Your task to perform on an android device: Clear all items from cart on newegg. Search for usb-c to usb-a on newegg, select the first entry, and add it to the cart. Image 0: 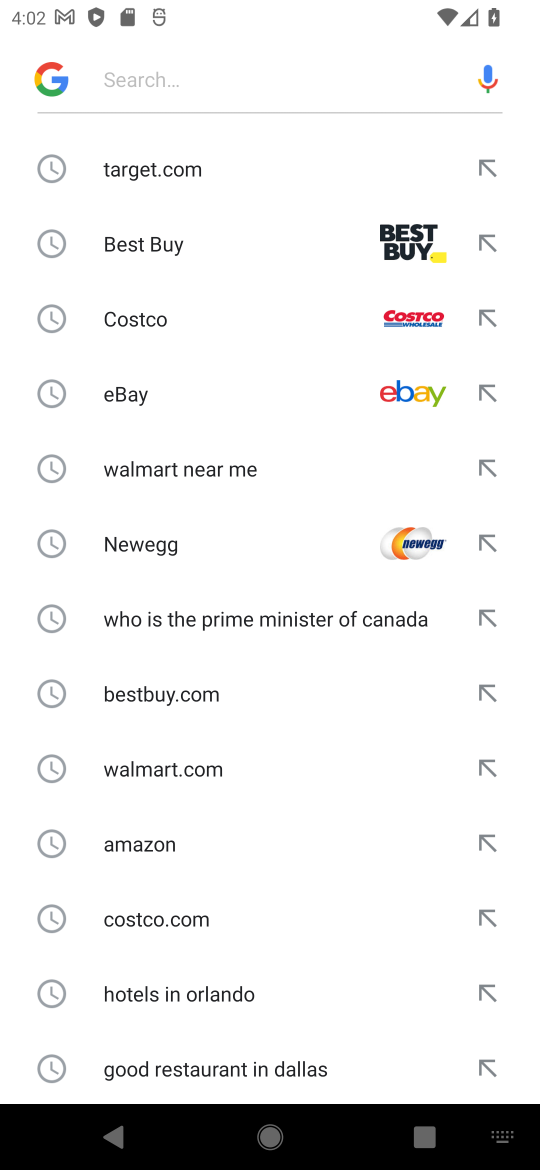
Step 0: press home button
Your task to perform on an android device: Clear all items from cart on newegg. Search for usb-c to usb-a on newegg, select the first entry, and add it to the cart. Image 1: 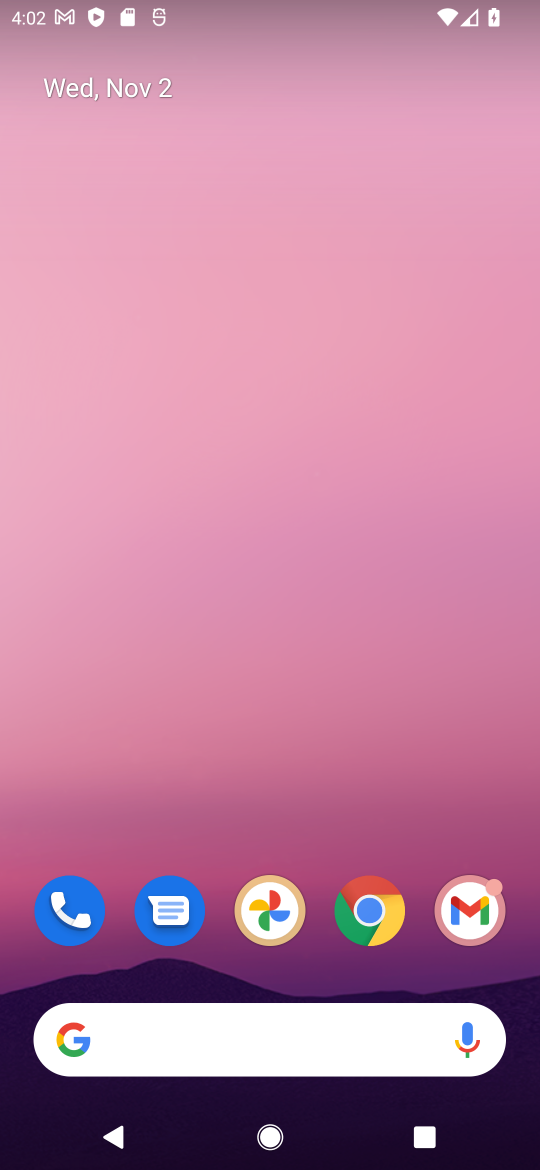
Step 1: click (377, 910)
Your task to perform on an android device: Clear all items from cart on newegg. Search for usb-c to usb-a on newegg, select the first entry, and add it to the cart. Image 2: 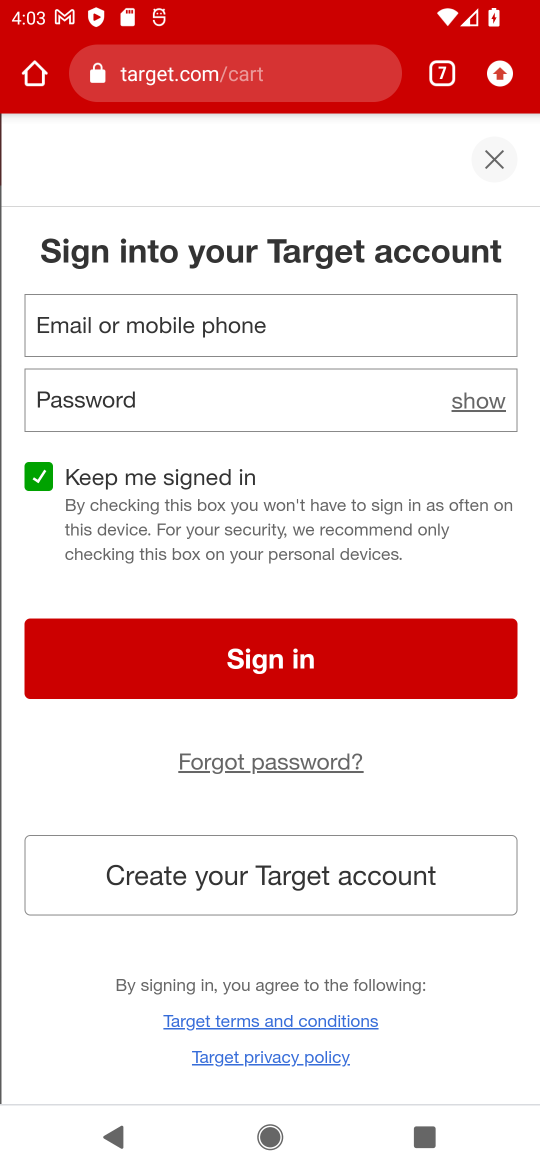
Step 2: click (453, 82)
Your task to perform on an android device: Clear all items from cart on newegg. Search for usb-c to usb-a on newegg, select the first entry, and add it to the cart. Image 3: 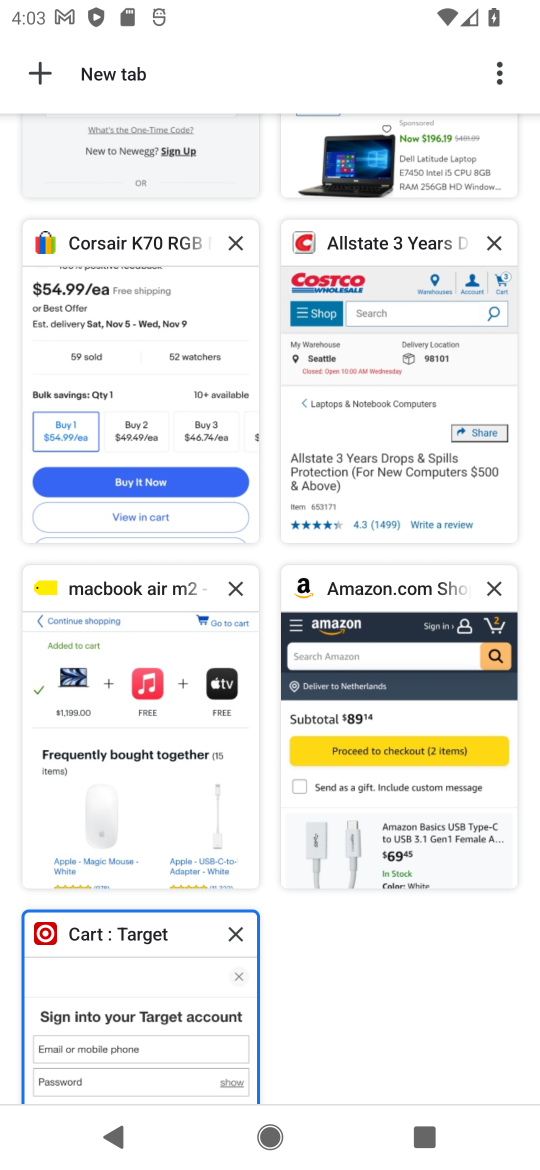
Step 3: drag from (337, 260) to (321, 680)
Your task to perform on an android device: Clear all items from cart on newegg. Search for usb-c to usb-a on newegg, select the first entry, and add it to the cart. Image 4: 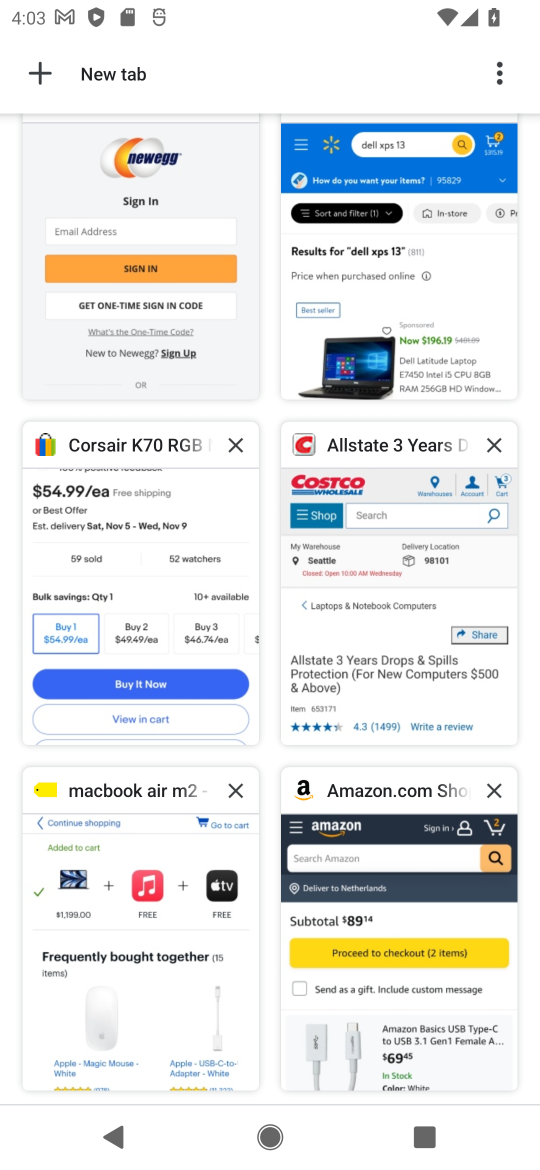
Step 4: drag from (306, 908) to (391, 462)
Your task to perform on an android device: Clear all items from cart on newegg. Search for usb-c to usb-a on newegg, select the first entry, and add it to the cart. Image 5: 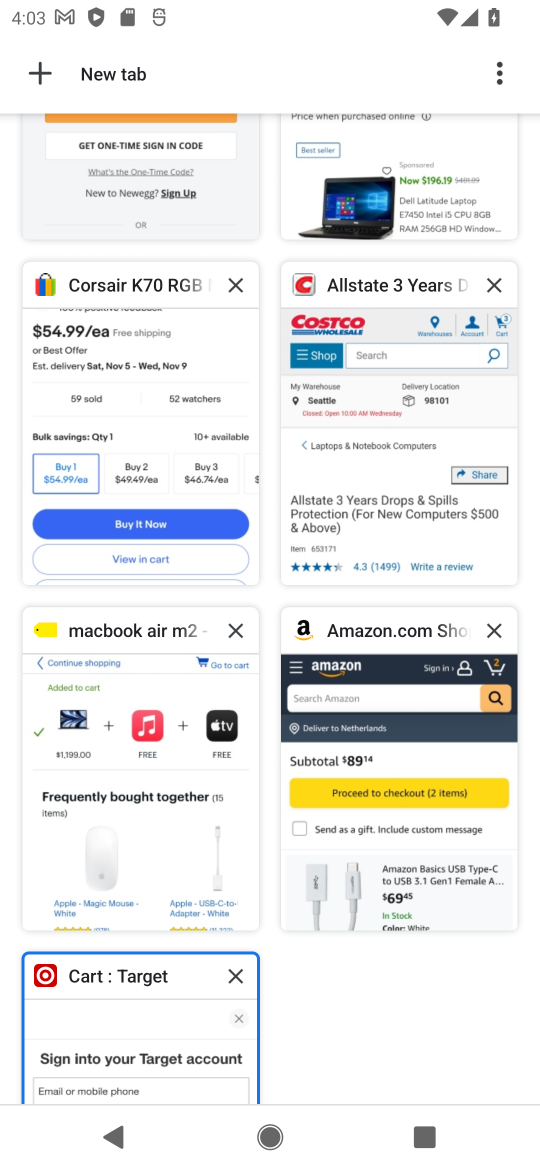
Step 5: drag from (381, 395) to (386, 1000)
Your task to perform on an android device: Clear all items from cart on newegg. Search for usb-c to usb-a on newegg, select the first entry, and add it to the cart. Image 6: 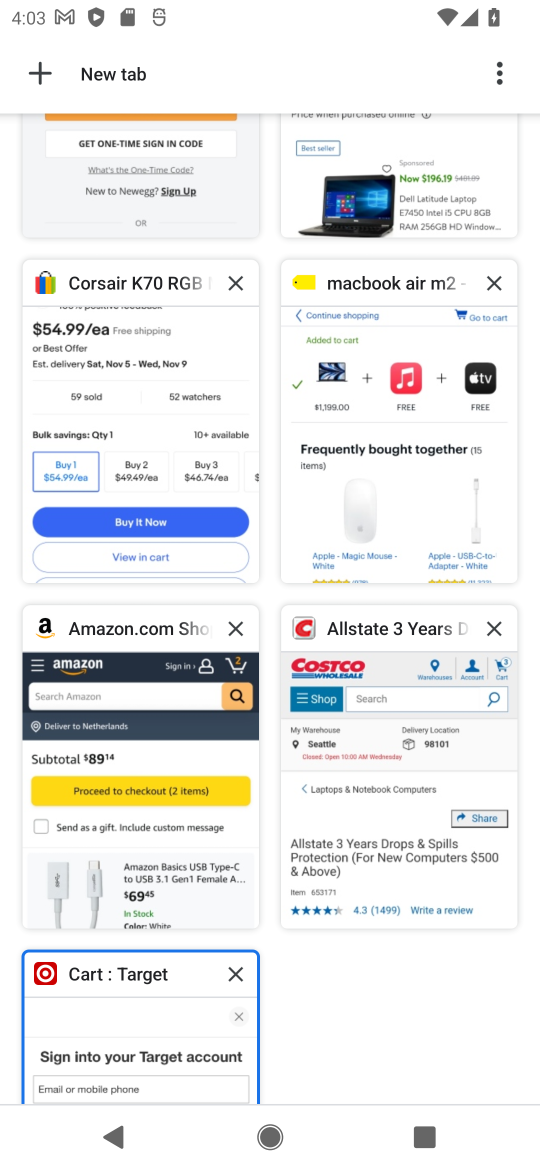
Step 6: click (161, 202)
Your task to perform on an android device: Clear all items from cart on newegg. Search for usb-c to usb-a on newegg, select the first entry, and add it to the cart. Image 7: 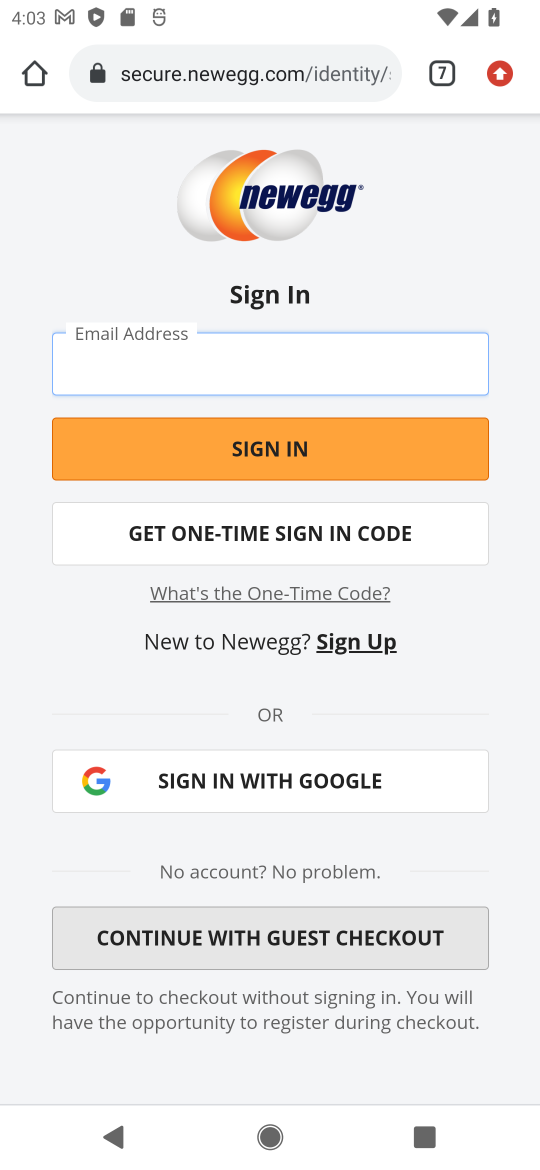
Step 7: press back button
Your task to perform on an android device: Clear all items from cart on newegg. Search for usb-c to usb-a on newegg, select the first entry, and add it to the cart. Image 8: 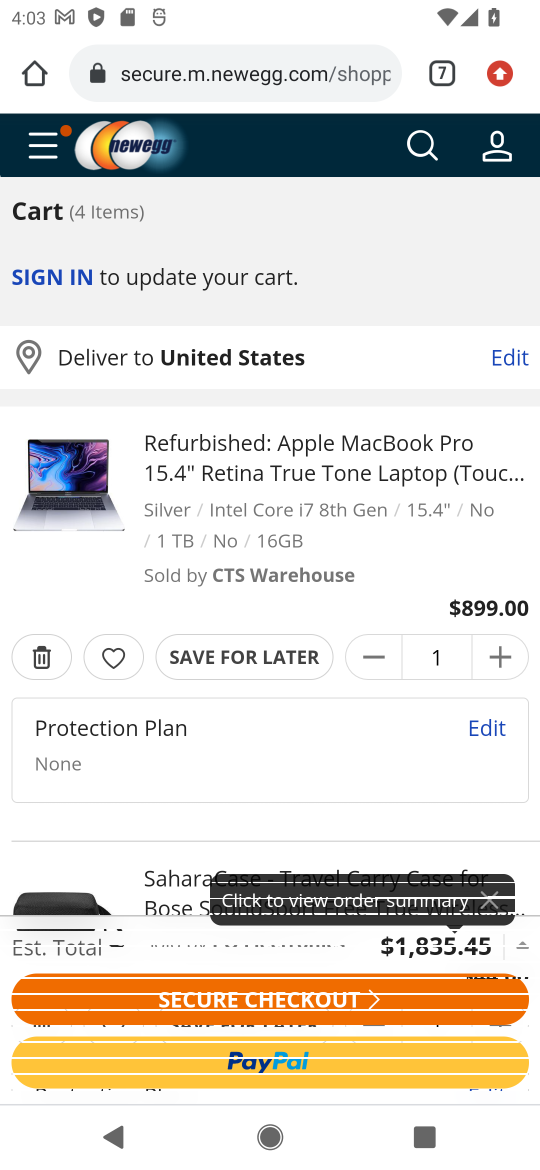
Step 8: click (420, 143)
Your task to perform on an android device: Clear all items from cart on newegg. Search for usb-c to usb-a on newegg, select the first entry, and add it to the cart. Image 9: 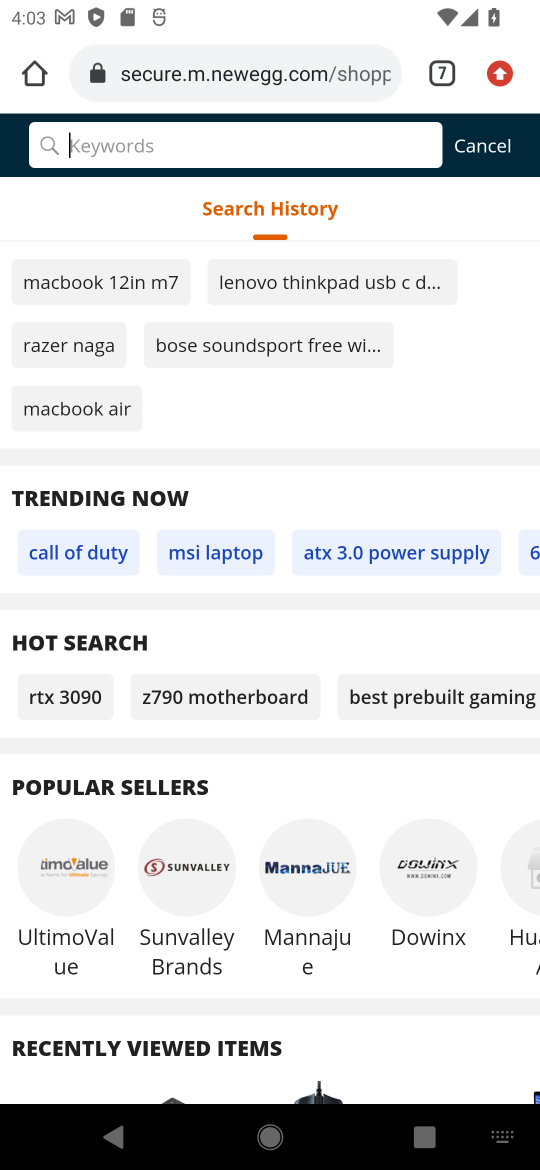
Step 9: type "usb-c to usb-a"
Your task to perform on an android device: Clear all items from cart on newegg. Search for usb-c to usb-a on newegg, select the first entry, and add it to the cart. Image 10: 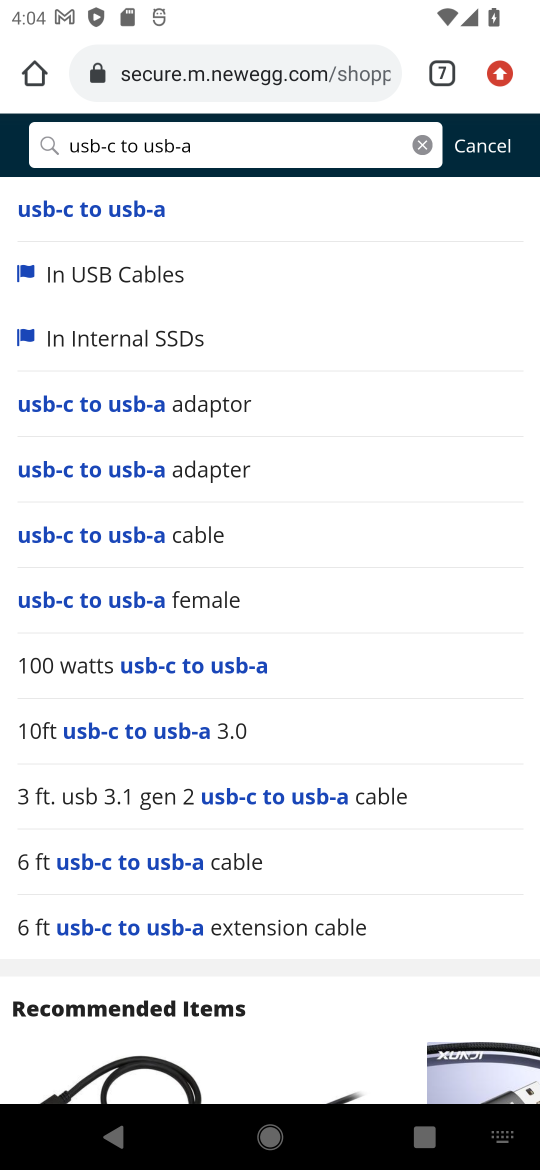
Step 10: click (138, 210)
Your task to perform on an android device: Clear all items from cart on newegg. Search for usb-c to usb-a on newegg, select the first entry, and add it to the cart. Image 11: 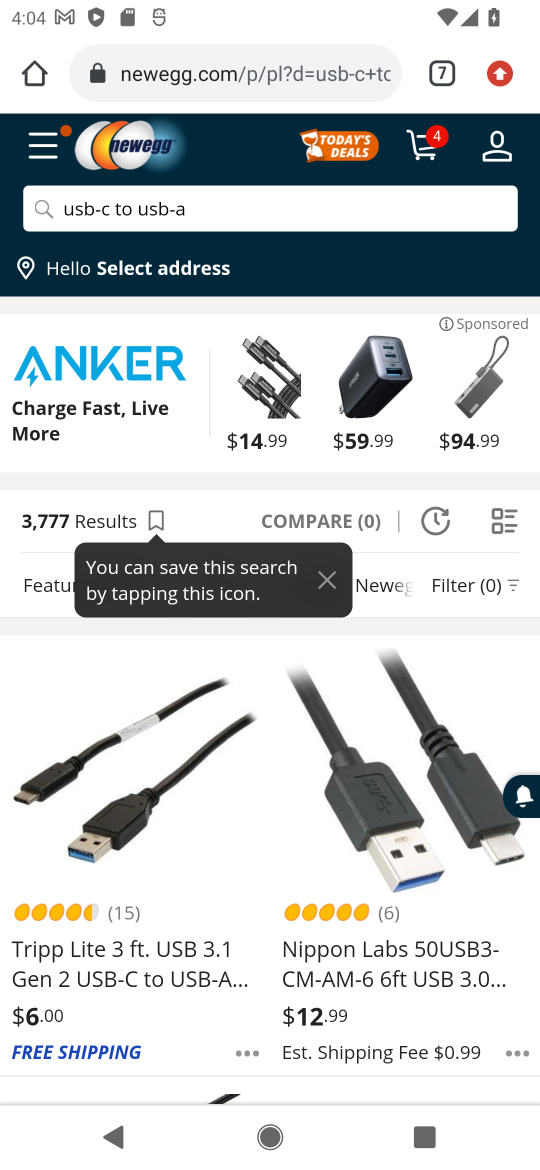
Step 11: click (142, 952)
Your task to perform on an android device: Clear all items from cart on newegg. Search for usb-c to usb-a on newegg, select the first entry, and add it to the cart. Image 12: 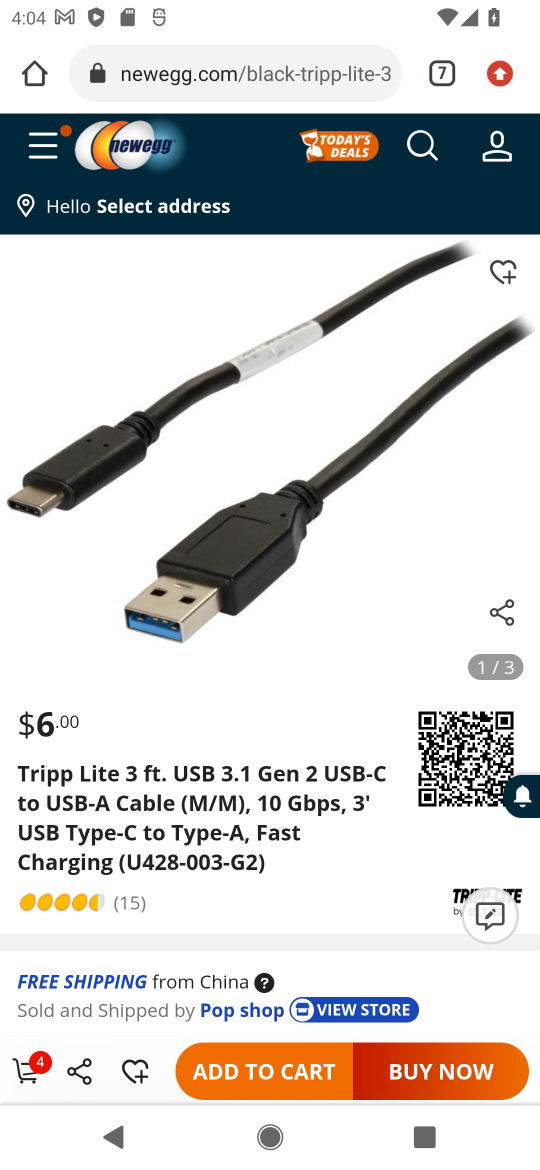
Step 12: click (259, 1063)
Your task to perform on an android device: Clear all items from cart on newegg. Search for usb-c to usb-a on newegg, select the first entry, and add it to the cart. Image 13: 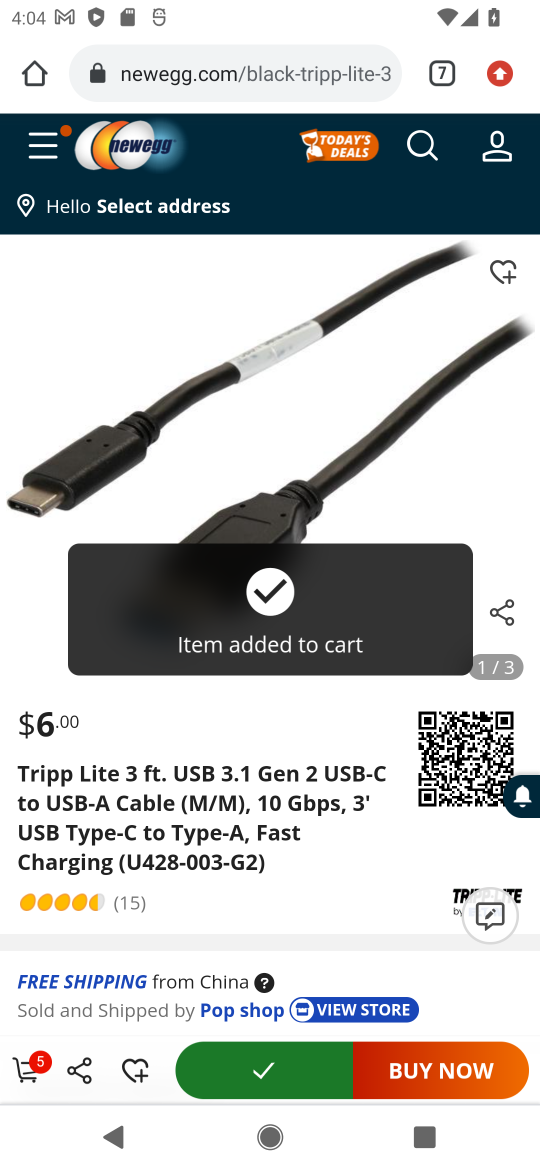
Step 13: task complete